Your task to perform on an android device: See recent photos Image 0: 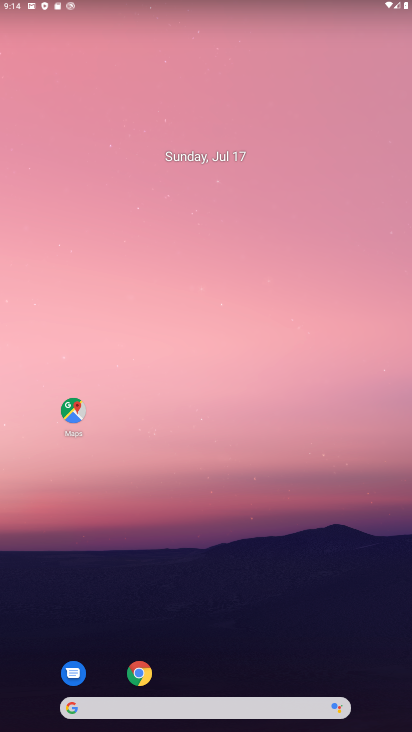
Step 0: drag from (244, 575) to (153, 99)
Your task to perform on an android device: See recent photos Image 1: 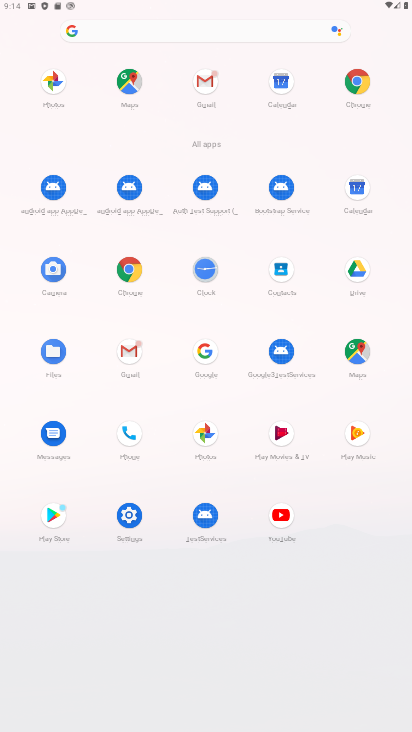
Step 1: click (49, 81)
Your task to perform on an android device: See recent photos Image 2: 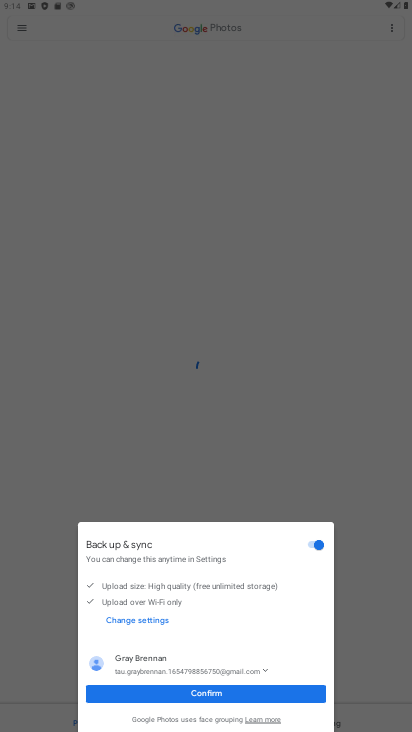
Step 2: click (215, 695)
Your task to perform on an android device: See recent photos Image 3: 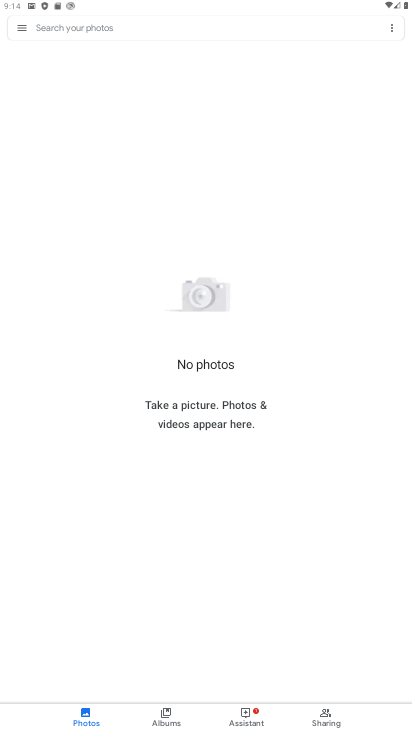
Step 3: task complete